Your task to perform on an android device: turn smart compose on in the gmail app Image 0: 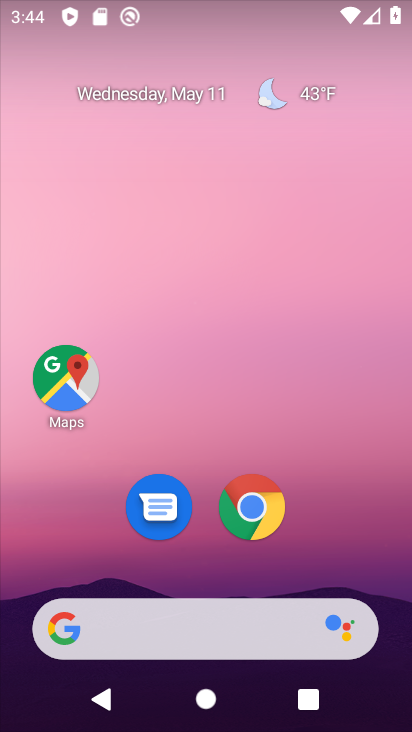
Step 0: drag from (399, 633) to (343, 62)
Your task to perform on an android device: turn smart compose on in the gmail app Image 1: 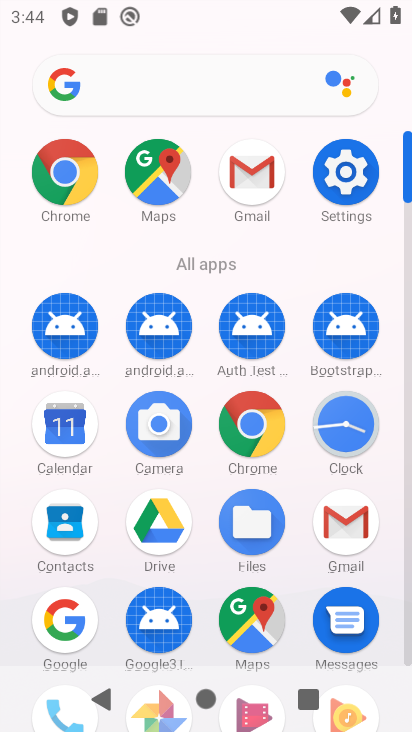
Step 1: click (407, 656)
Your task to perform on an android device: turn smart compose on in the gmail app Image 2: 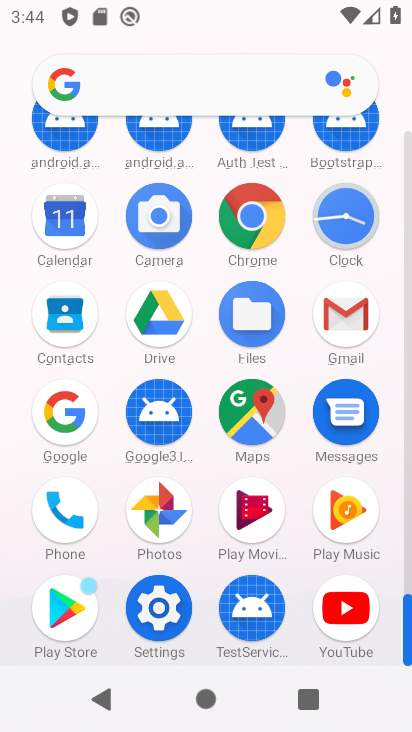
Step 2: click (345, 314)
Your task to perform on an android device: turn smart compose on in the gmail app Image 3: 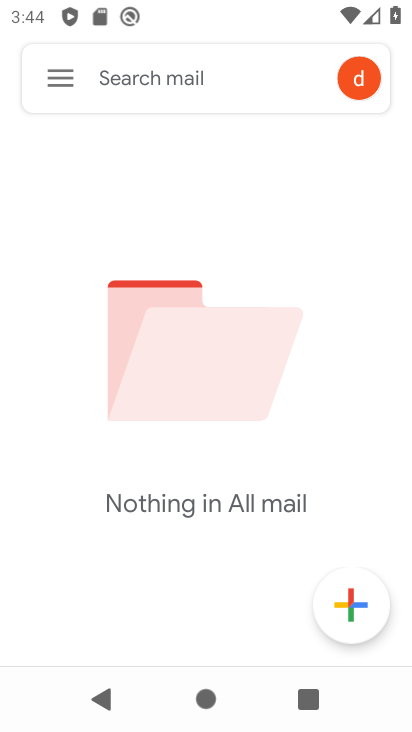
Step 3: click (58, 73)
Your task to perform on an android device: turn smart compose on in the gmail app Image 4: 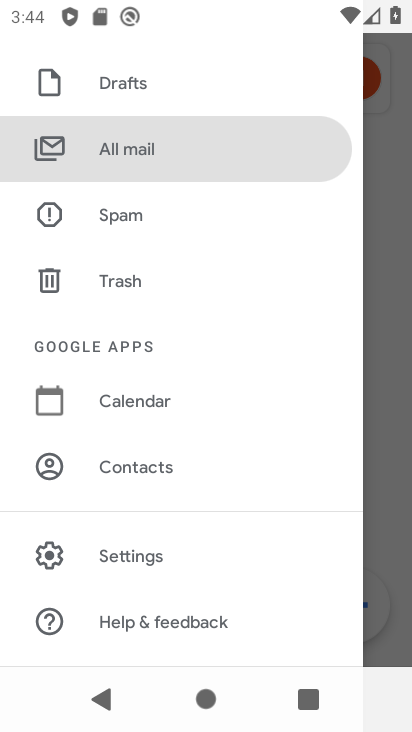
Step 4: click (135, 548)
Your task to perform on an android device: turn smart compose on in the gmail app Image 5: 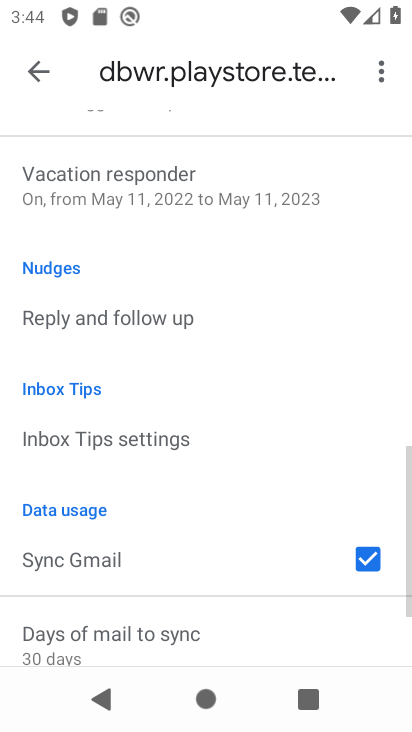
Step 5: task complete